Your task to perform on an android device: turn on wifi Image 0: 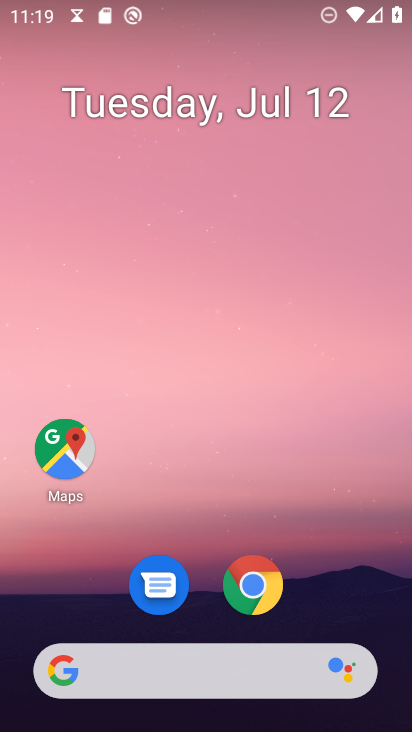
Step 0: drag from (225, 604) to (351, 52)
Your task to perform on an android device: turn on wifi Image 1: 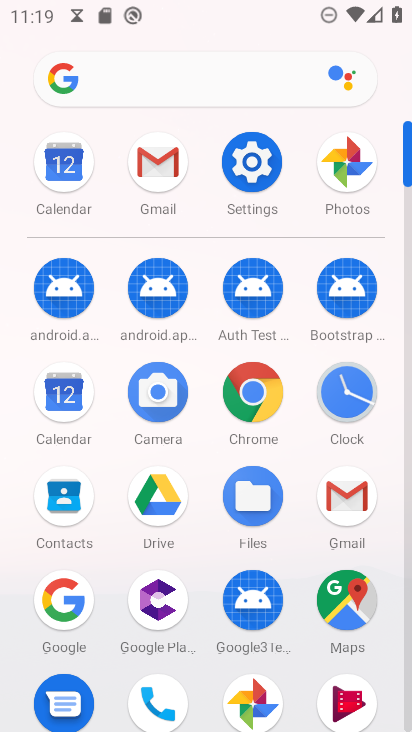
Step 1: click (261, 223)
Your task to perform on an android device: turn on wifi Image 2: 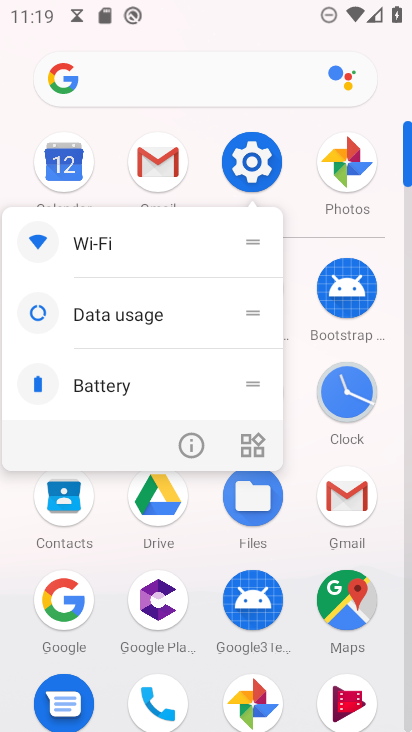
Step 2: click (253, 166)
Your task to perform on an android device: turn on wifi Image 3: 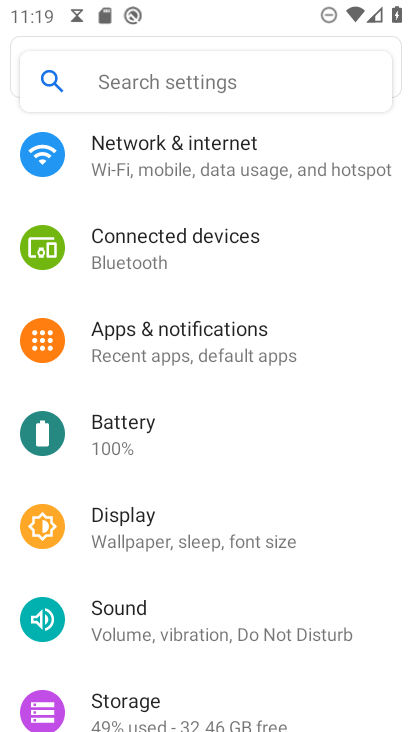
Step 3: click (242, 160)
Your task to perform on an android device: turn on wifi Image 4: 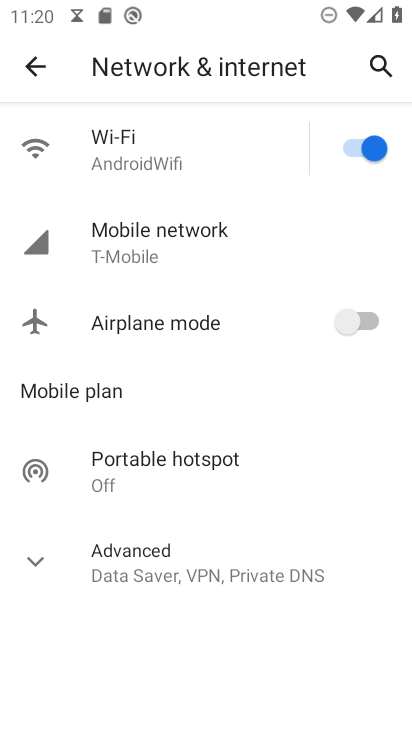
Step 4: task complete